Your task to perform on an android device: check the backup settings in the google photos Image 0: 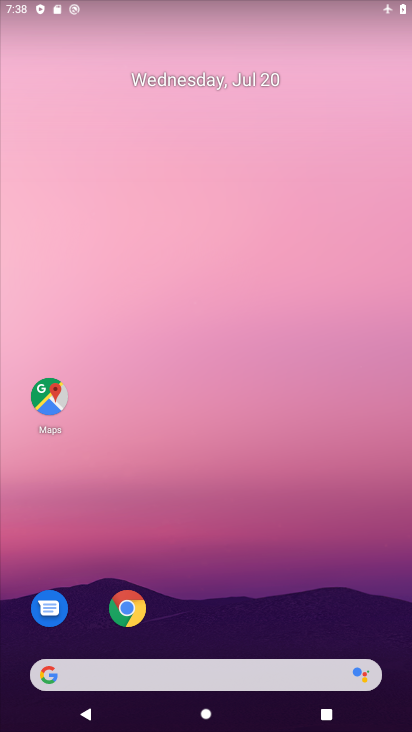
Step 0: drag from (346, 581) to (275, 27)
Your task to perform on an android device: check the backup settings in the google photos Image 1: 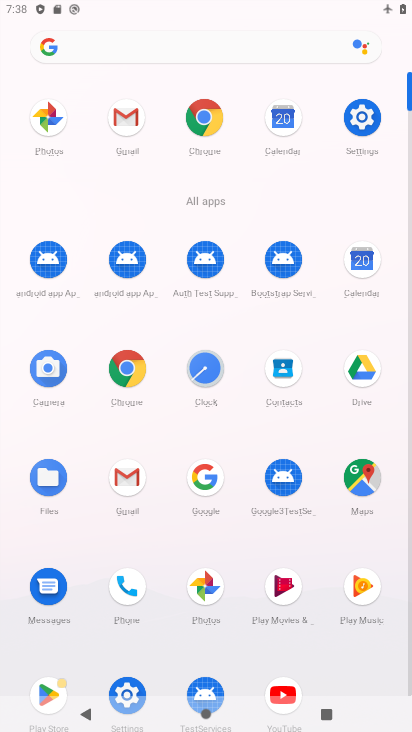
Step 1: click (212, 589)
Your task to perform on an android device: check the backup settings in the google photos Image 2: 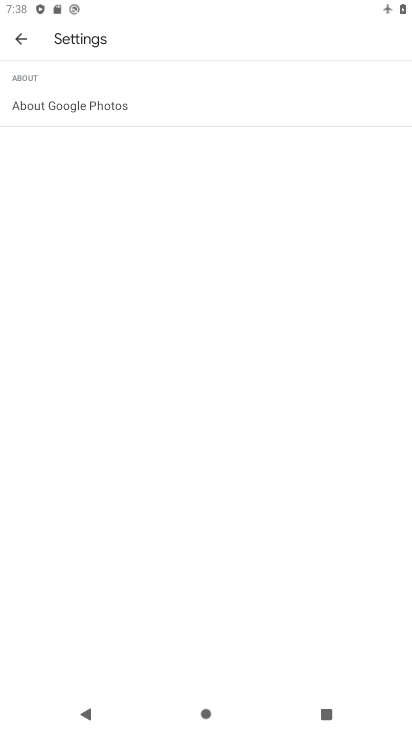
Step 2: click (22, 38)
Your task to perform on an android device: check the backup settings in the google photos Image 3: 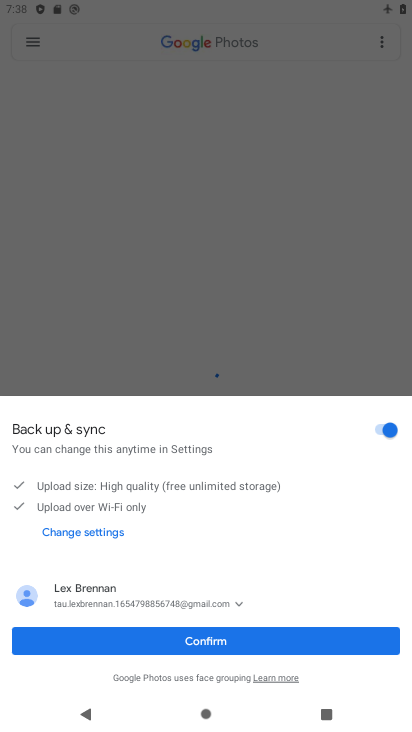
Step 3: click (284, 635)
Your task to perform on an android device: check the backup settings in the google photos Image 4: 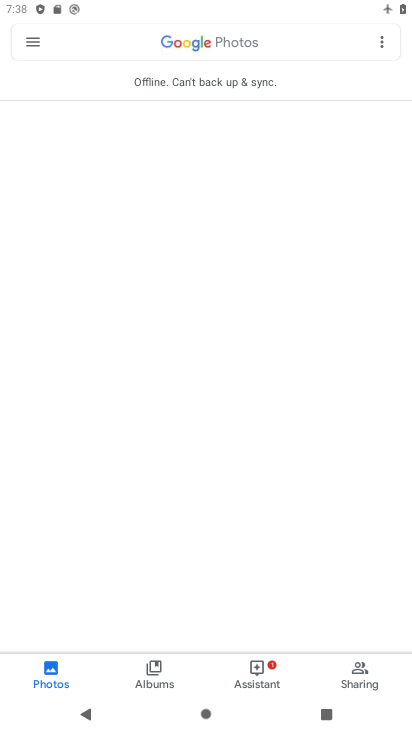
Step 4: click (37, 45)
Your task to perform on an android device: check the backup settings in the google photos Image 5: 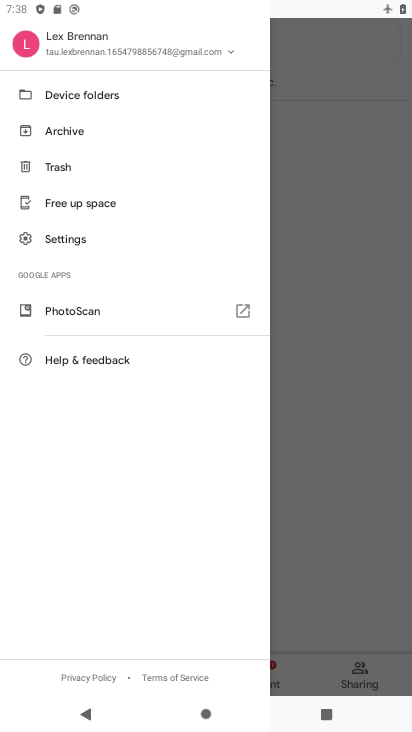
Step 5: click (74, 234)
Your task to perform on an android device: check the backup settings in the google photos Image 6: 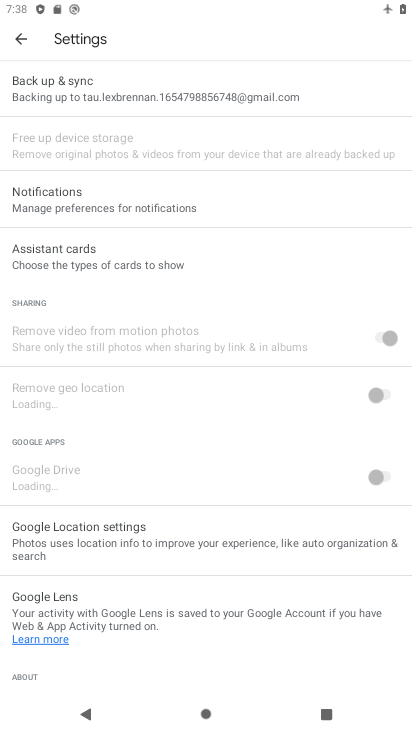
Step 6: click (127, 94)
Your task to perform on an android device: check the backup settings in the google photos Image 7: 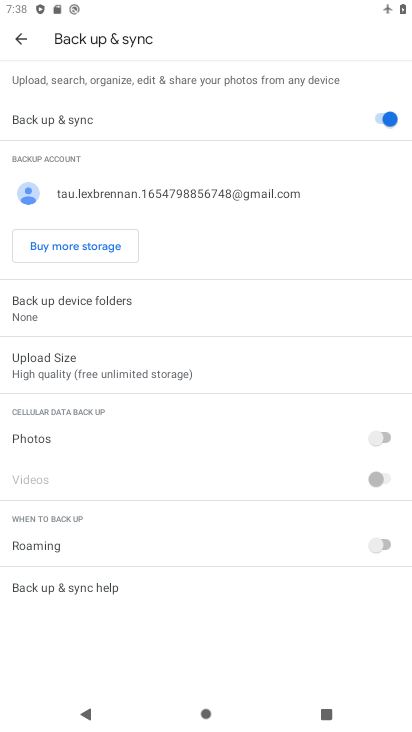
Step 7: task complete